Your task to perform on an android device: find snoozed emails in the gmail app Image 0: 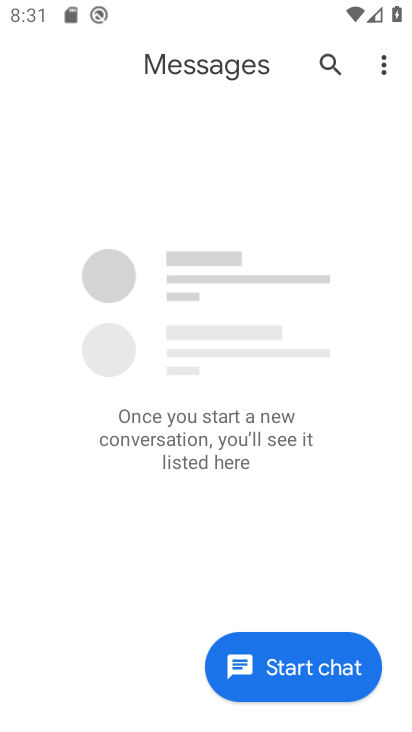
Step 0: press home button
Your task to perform on an android device: find snoozed emails in the gmail app Image 1: 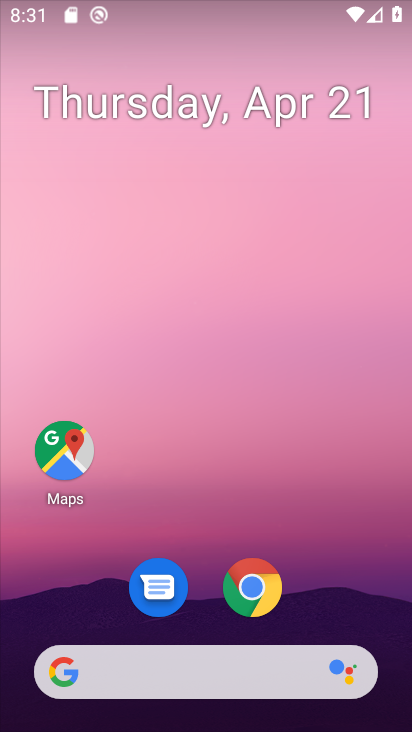
Step 1: drag from (380, 529) to (345, 238)
Your task to perform on an android device: find snoozed emails in the gmail app Image 2: 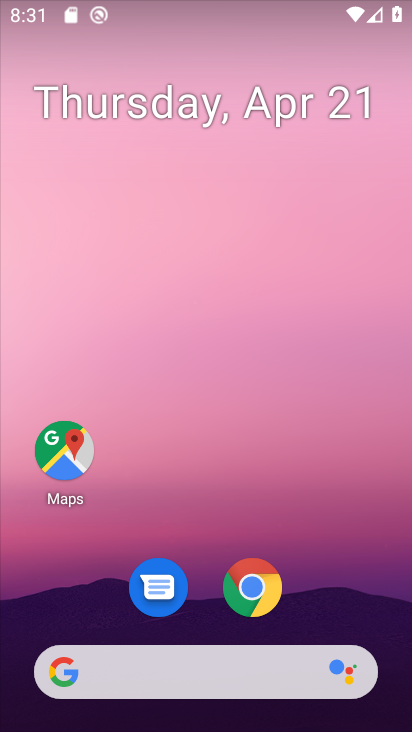
Step 2: drag from (375, 526) to (337, 145)
Your task to perform on an android device: find snoozed emails in the gmail app Image 3: 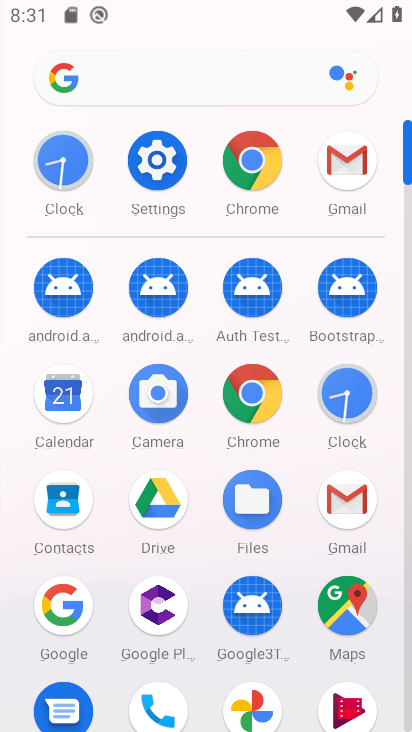
Step 3: click (349, 485)
Your task to perform on an android device: find snoozed emails in the gmail app Image 4: 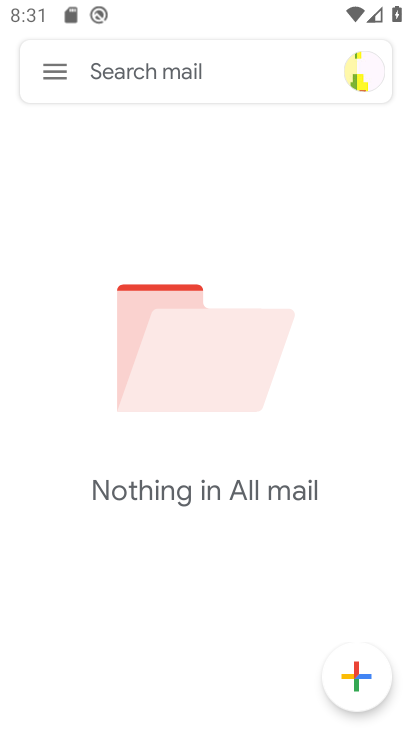
Step 4: click (51, 74)
Your task to perform on an android device: find snoozed emails in the gmail app Image 5: 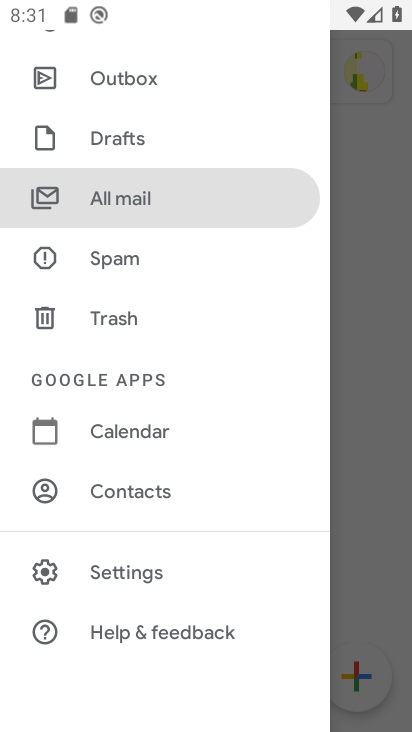
Step 5: drag from (237, 479) to (238, 638)
Your task to perform on an android device: find snoozed emails in the gmail app Image 6: 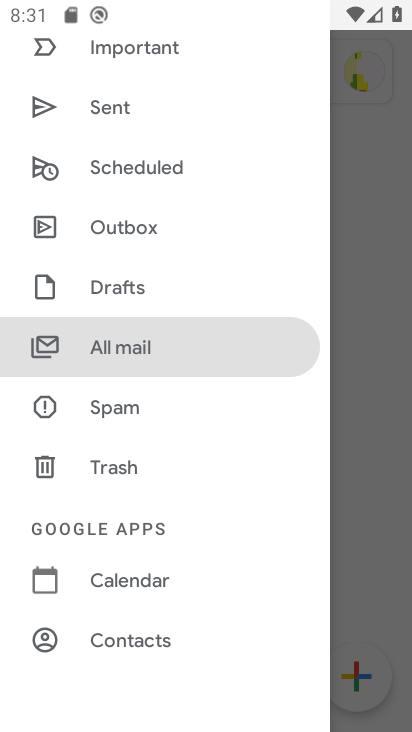
Step 6: drag from (259, 206) to (296, 675)
Your task to perform on an android device: find snoozed emails in the gmail app Image 7: 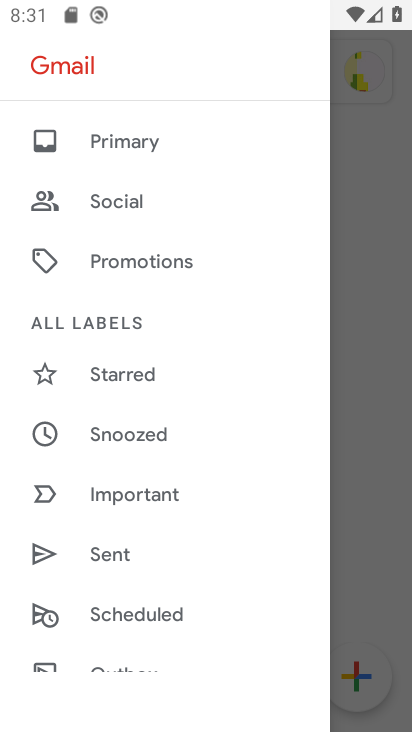
Step 7: click (91, 433)
Your task to perform on an android device: find snoozed emails in the gmail app Image 8: 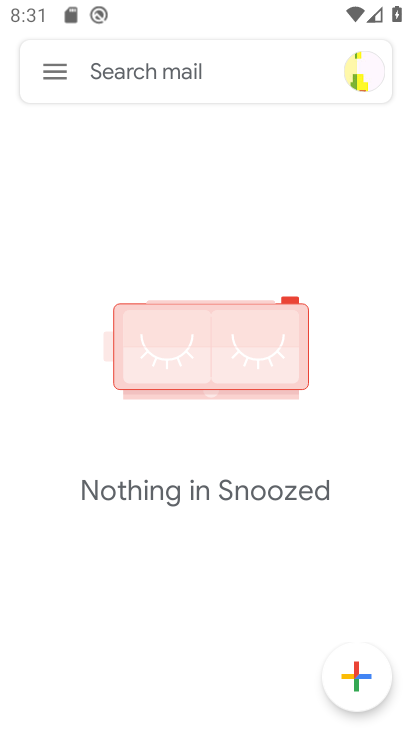
Step 8: task complete